Your task to perform on an android device: Open wifi settings Image 0: 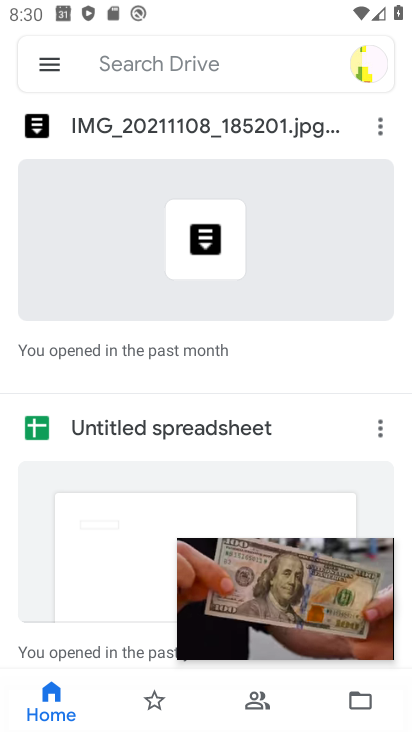
Step 0: press home button
Your task to perform on an android device: Open wifi settings Image 1: 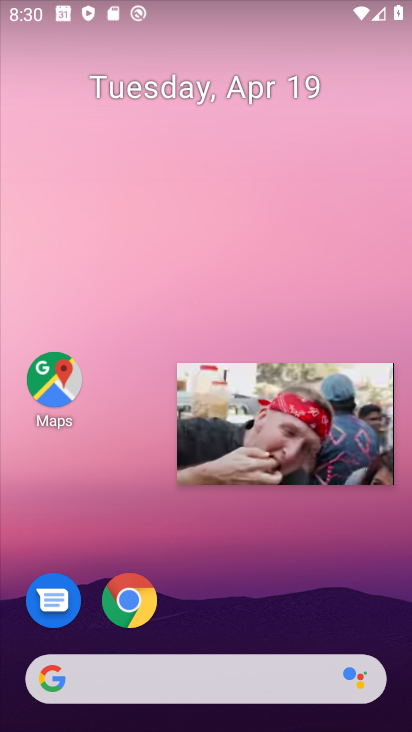
Step 1: click (326, 397)
Your task to perform on an android device: Open wifi settings Image 2: 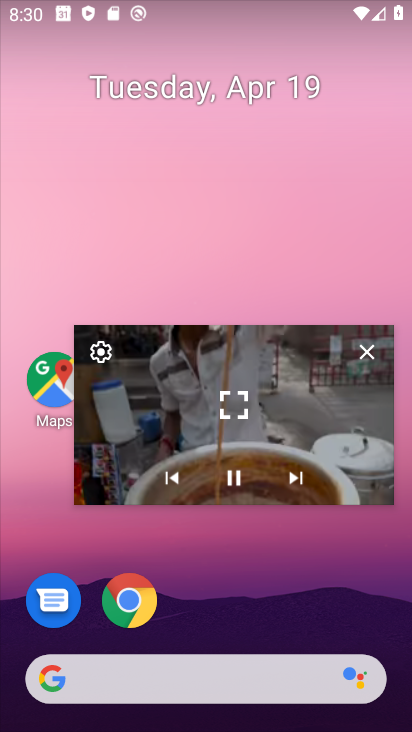
Step 2: click (374, 352)
Your task to perform on an android device: Open wifi settings Image 3: 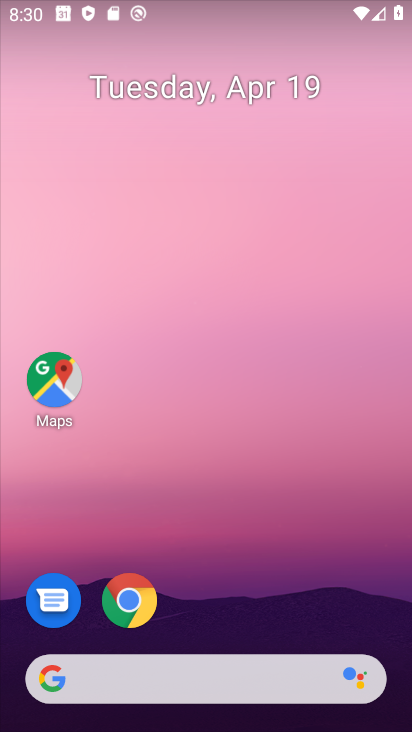
Step 3: drag from (242, 628) to (214, 4)
Your task to perform on an android device: Open wifi settings Image 4: 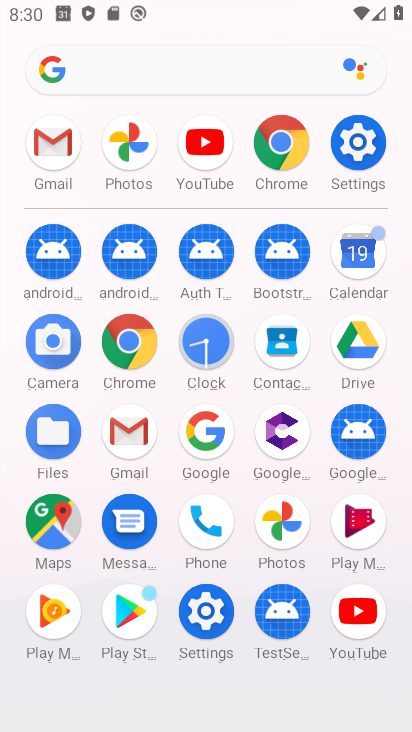
Step 4: click (362, 149)
Your task to perform on an android device: Open wifi settings Image 5: 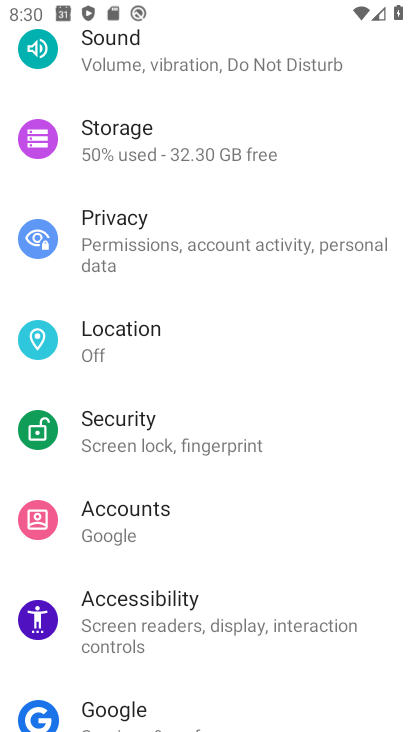
Step 5: drag from (192, 189) to (180, 629)
Your task to perform on an android device: Open wifi settings Image 6: 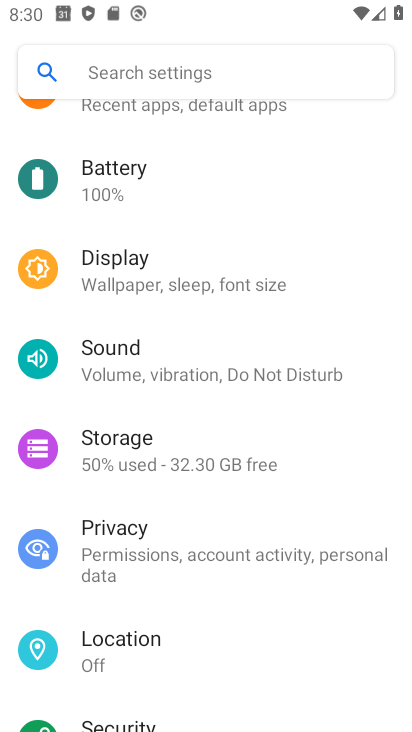
Step 6: drag from (125, 153) to (169, 599)
Your task to perform on an android device: Open wifi settings Image 7: 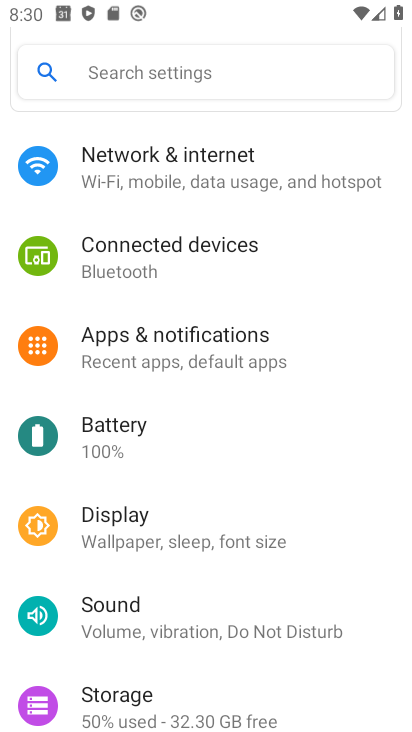
Step 7: click (178, 168)
Your task to perform on an android device: Open wifi settings Image 8: 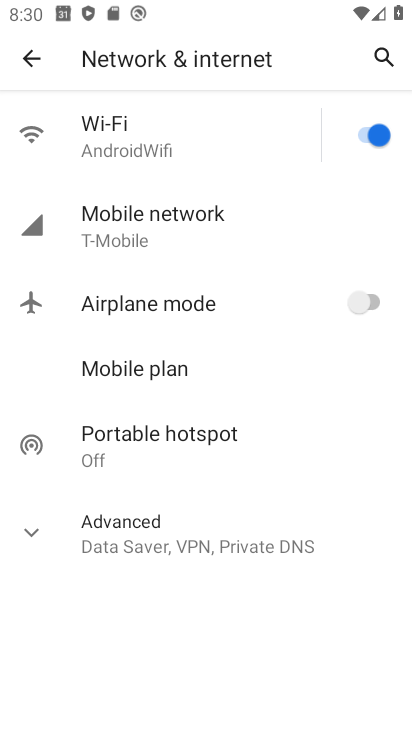
Step 8: click (178, 168)
Your task to perform on an android device: Open wifi settings Image 9: 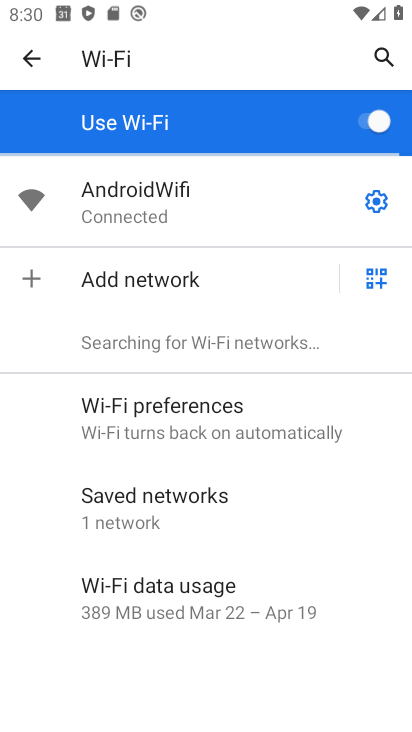
Step 9: task complete